Your task to perform on an android device: Open Google Maps and go to "Timeline" Image 0: 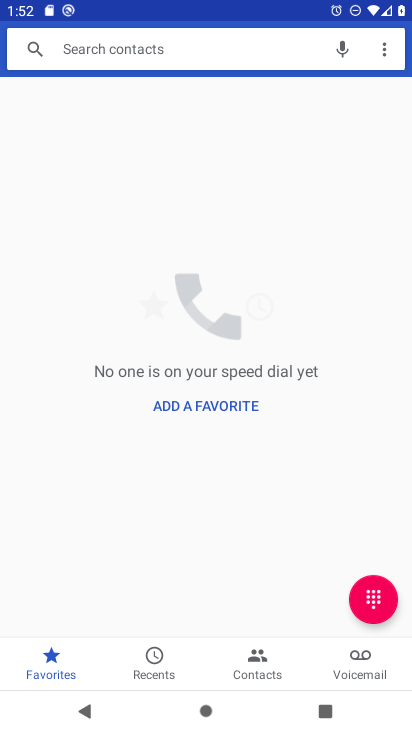
Step 0: press home button
Your task to perform on an android device: Open Google Maps and go to "Timeline" Image 1: 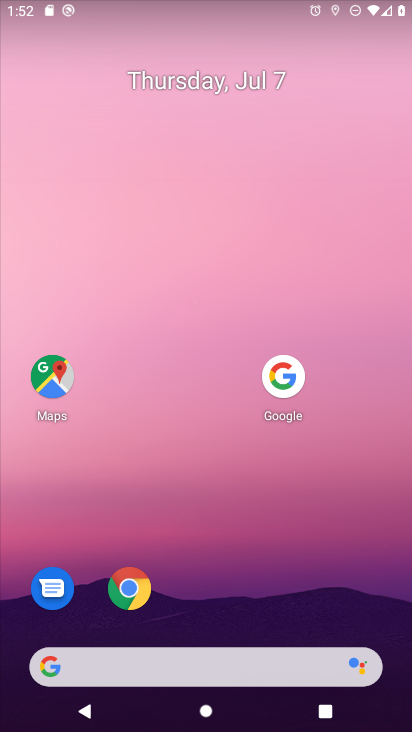
Step 1: click (45, 374)
Your task to perform on an android device: Open Google Maps and go to "Timeline" Image 2: 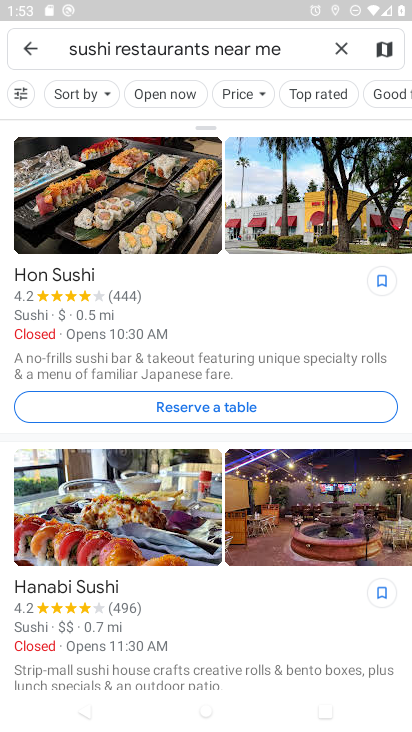
Step 2: click (38, 52)
Your task to perform on an android device: Open Google Maps and go to "Timeline" Image 3: 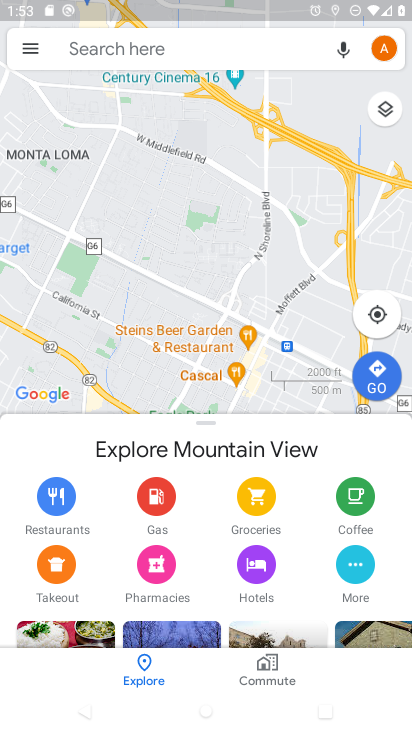
Step 3: click (32, 49)
Your task to perform on an android device: Open Google Maps and go to "Timeline" Image 4: 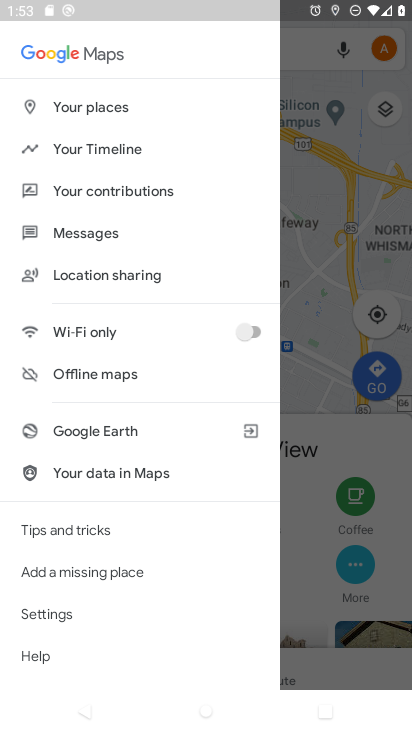
Step 4: click (80, 153)
Your task to perform on an android device: Open Google Maps and go to "Timeline" Image 5: 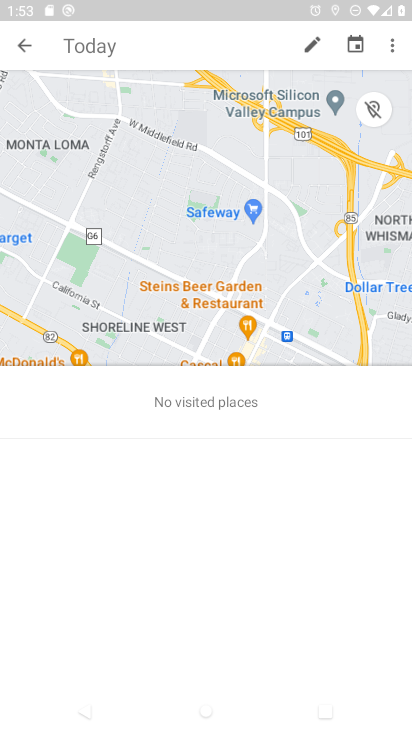
Step 5: task complete